Your task to perform on an android device: turn notification dots off Image 0: 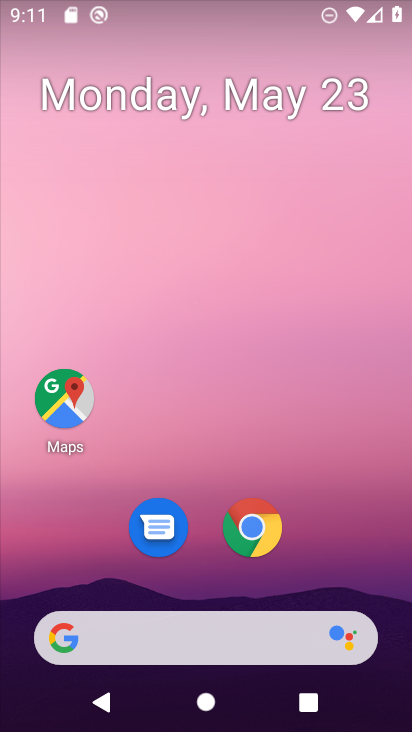
Step 0: drag from (220, 443) to (267, 0)
Your task to perform on an android device: turn notification dots off Image 1: 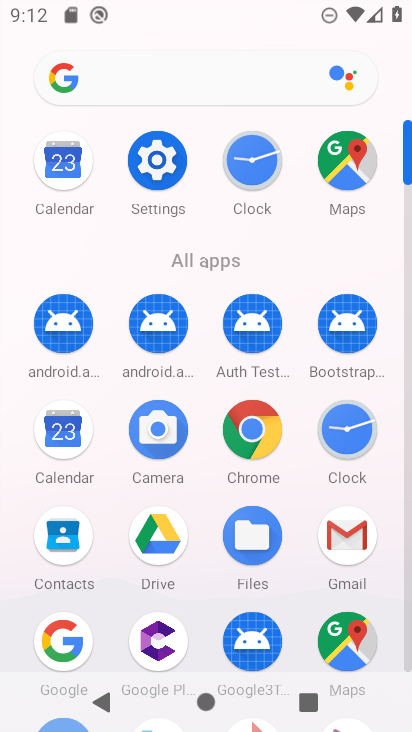
Step 1: click (161, 162)
Your task to perform on an android device: turn notification dots off Image 2: 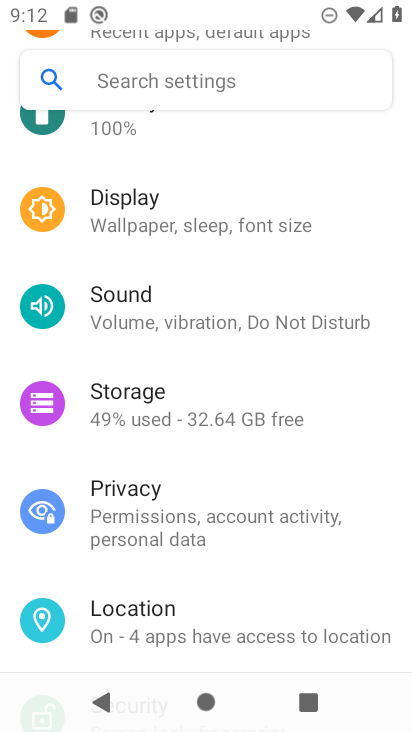
Step 2: drag from (205, 264) to (254, 586)
Your task to perform on an android device: turn notification dots off Image 3: 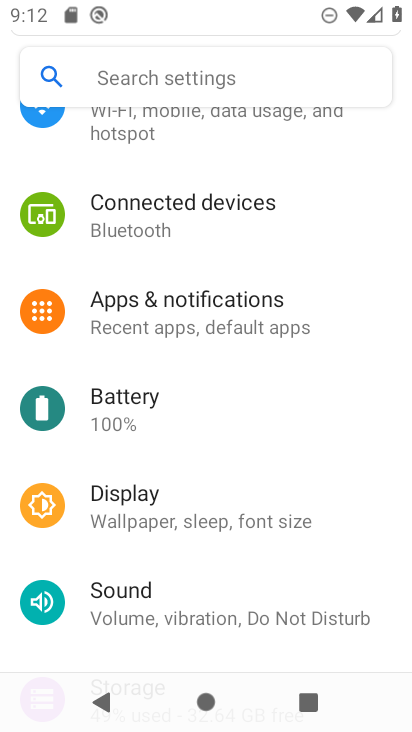
Step 3: click (226, 314)
Your task to perform on an android device: turn notification dots off Image 4: 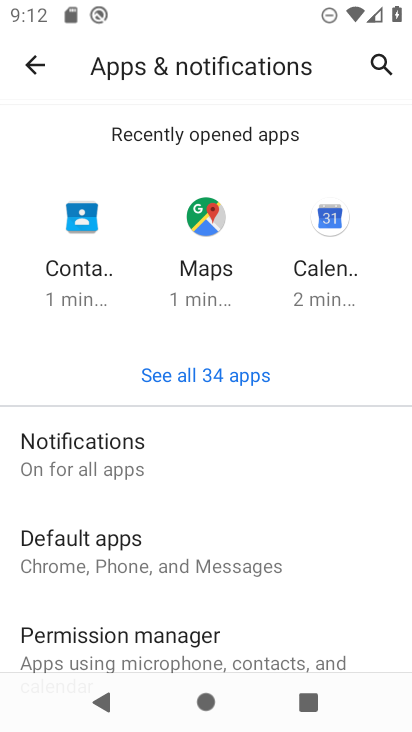
Step 4: click (182, 456)
Your task to perform on an android device: turn notification dots off Image 5: 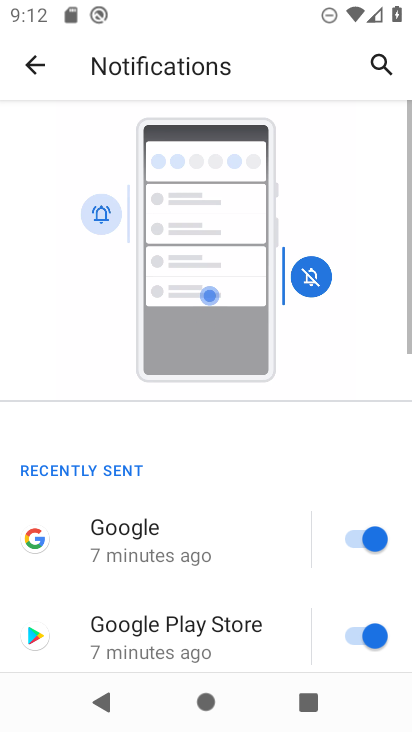
Step 5: drag from (232, 506) to (318, 29)
Your task to perform on an android device: turn notification dots off Image 6: 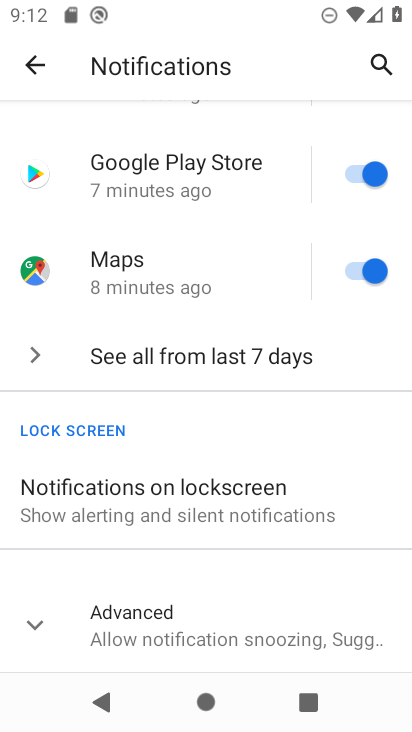
Step 6: click (33, 624)
Your task to perform on an android device: turn notification dots off Image 7: 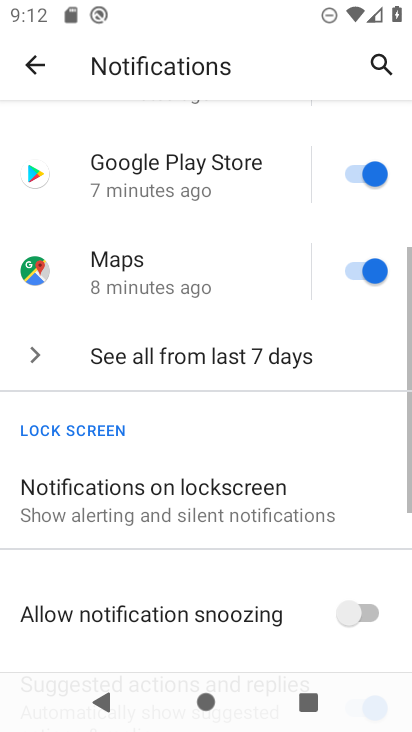
Step 7: drag from (173, 525) to (240, 95)
Your task to perform on an android device: turn notification dots off Image 8: 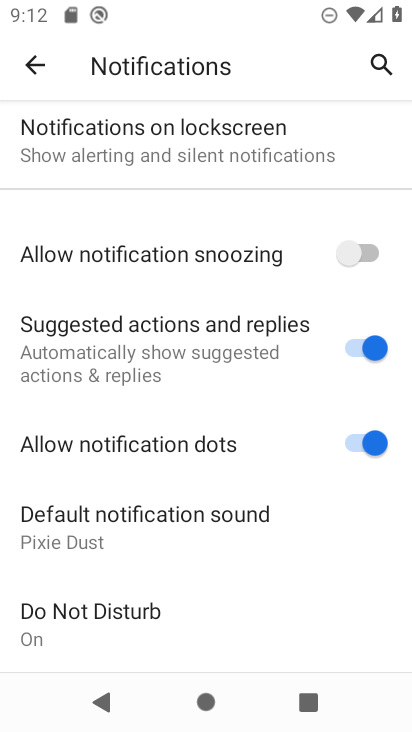
Step 8: click (355, 446)
Your task to perform on an android device: turn notification dots off Image 9: 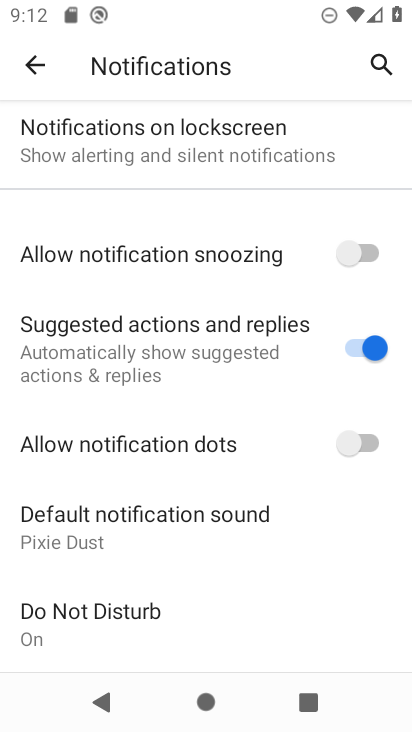
Step 9: task complete